Your task to perform on an android device: open app "McDonald's" (install if not already installed) Image 0: 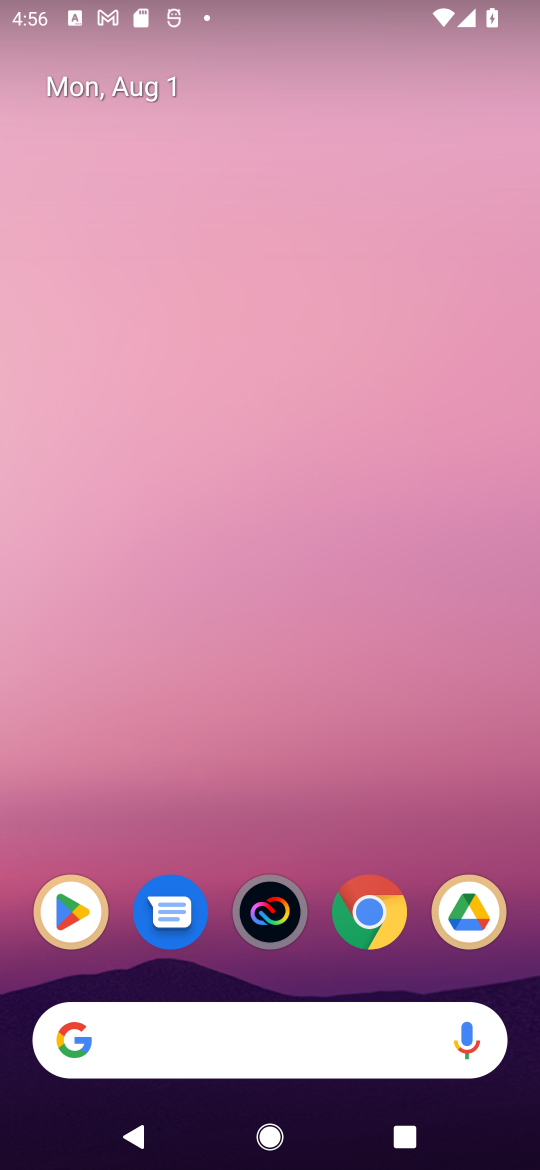
Step 0: click (89, 912)
Your task to perform on an android device: open app "McDonald's" (install if not already installed) Image 1: 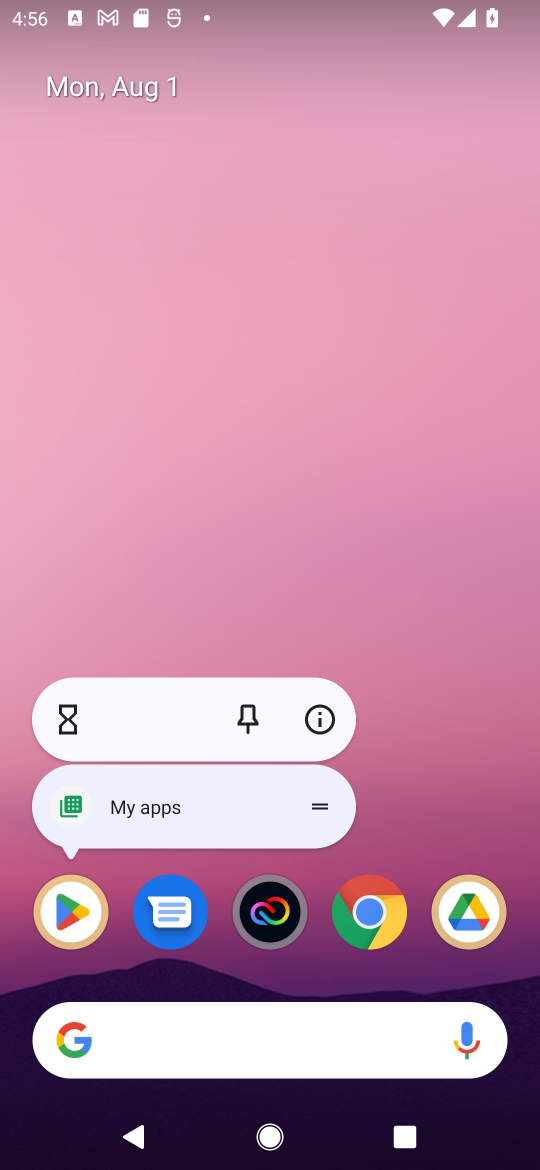
Step 1: click (62, 912)
Your task to perform on an android device: open app "McDonald's" (install if not already installed) Image 2: 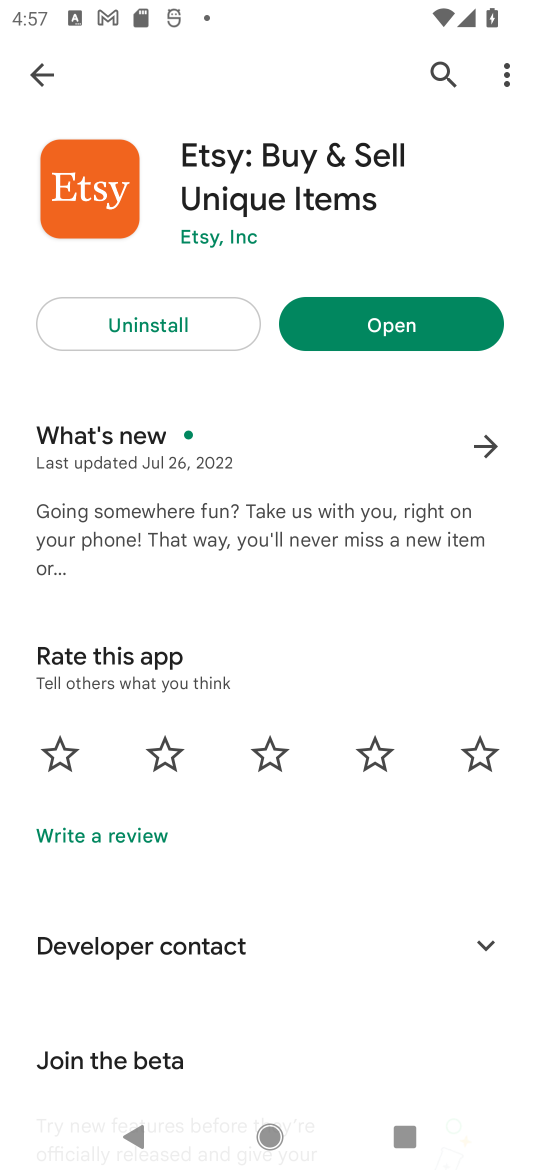
Step 2: click (438, 67)
Your task to perform on an android device: open app "McDonald's" (install if not already installed) Image 3: 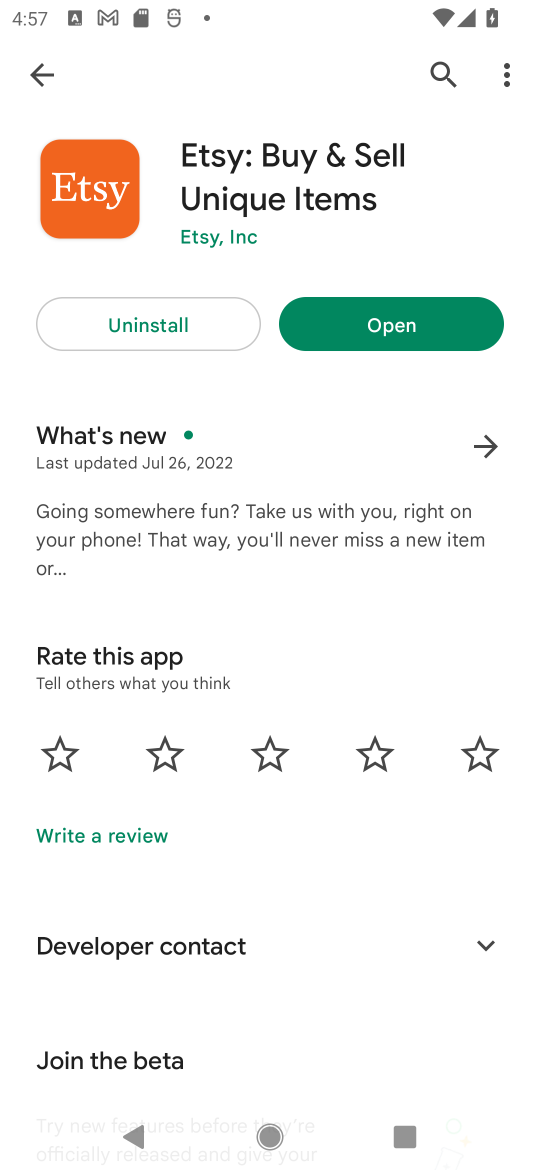
Step 3: click (450, 67)
Your task to perform on an android device: open app "McDonald's" (install if not already installed) Image 4: 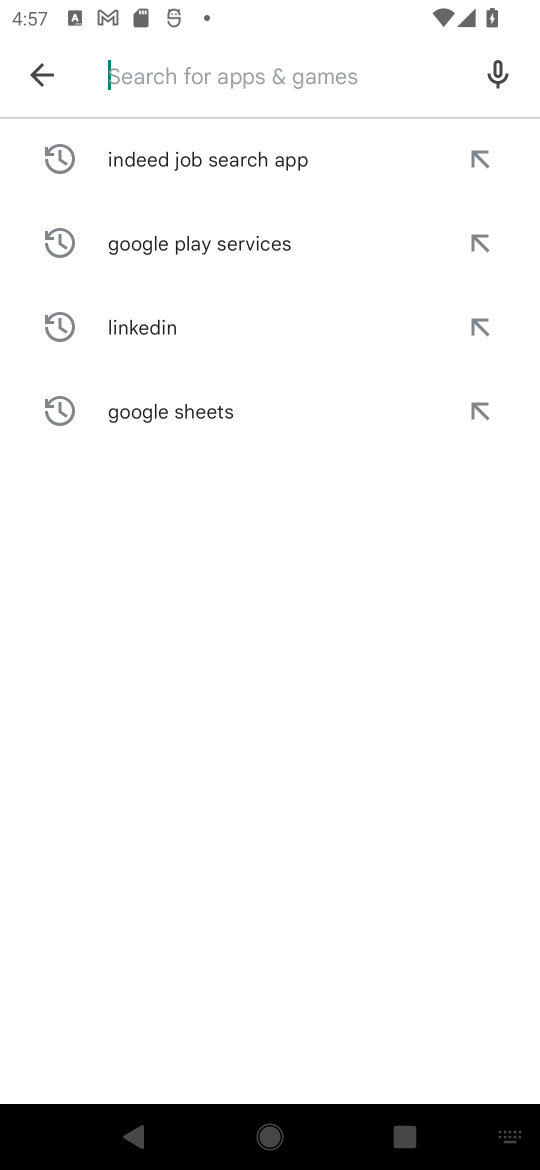
Step 4: type "McDonald's"
Your task to perform on an android device: open app "McDonald's" (install if not already installed) Image 5: 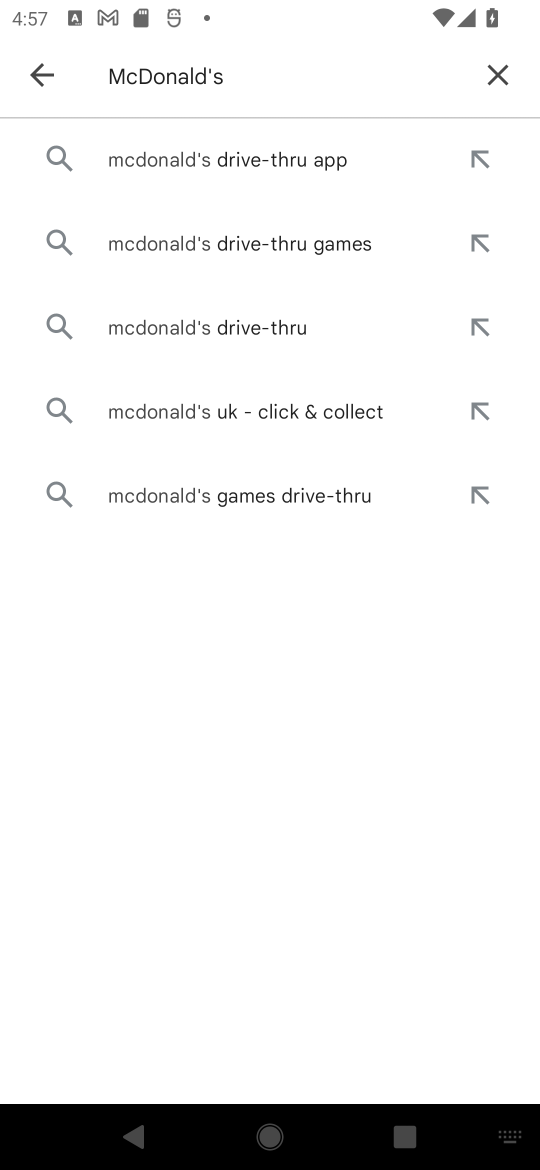
Step 5: click (231, 171)
Your task to perform on an android device: open app "McDonald's" (install if not already installed) Image 6: 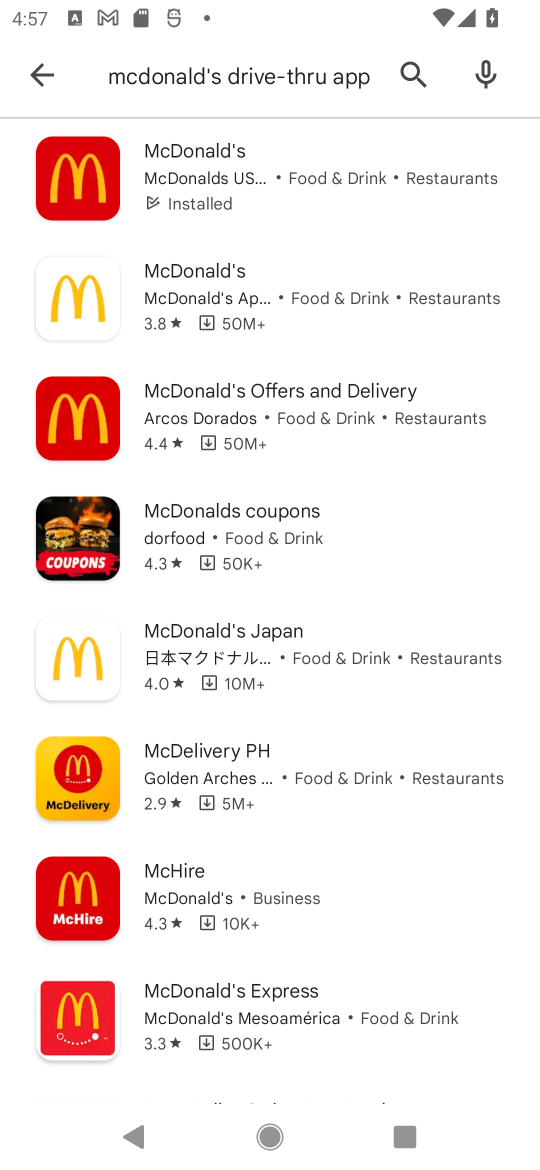
Step 6: click (226, 174)
Your task to perform on an android device: open app "McDonald's" (install if not already installed) Image 7: 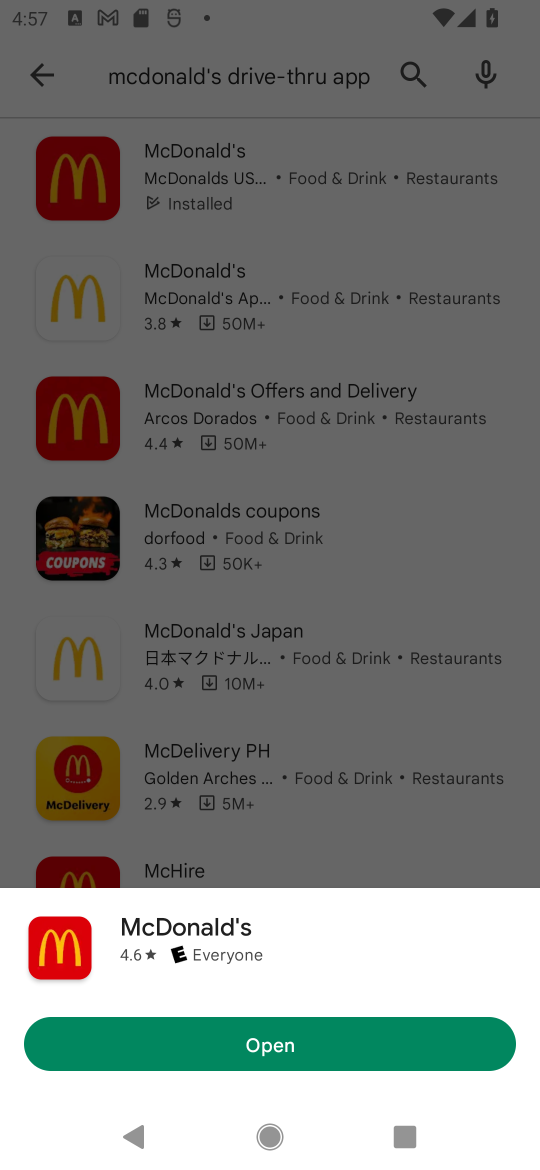
Step 7: click (275, 1056)
Your task to perform on an android device: open app "McDonald's" (install if not already installed) Image 8: 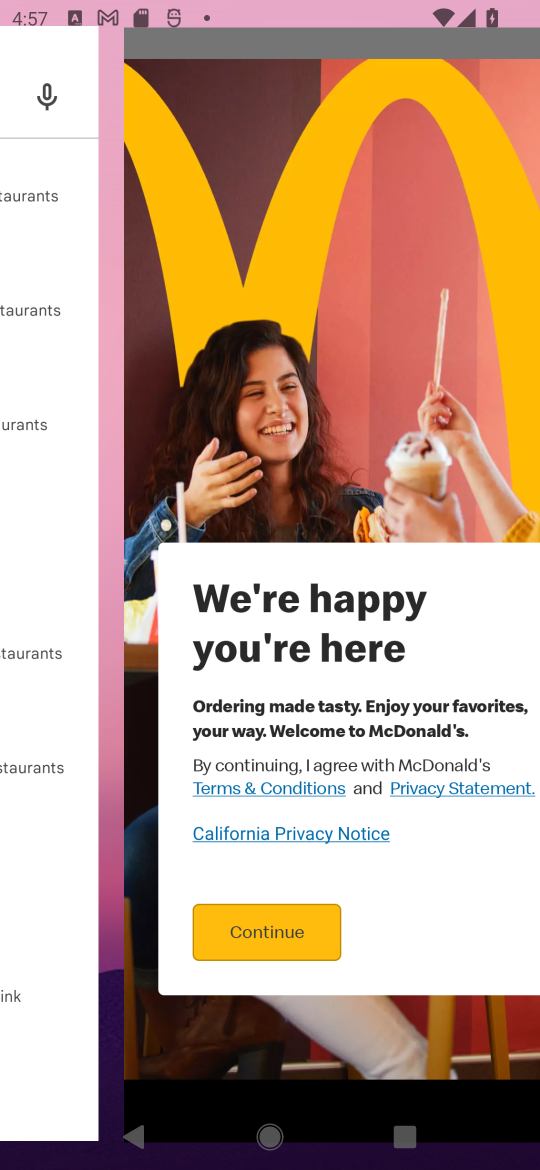
Step 8: click (171, 194)
Your task to perform on an android device: open app "McDonald's" (install if not already installed) Image 9: 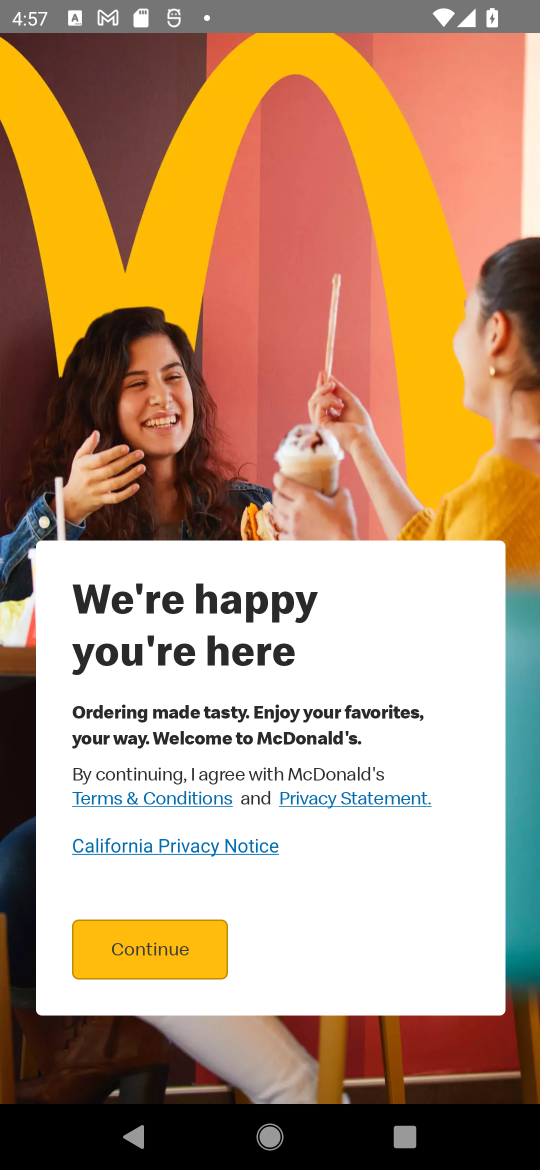
Step 9: task complete